Your task to perform on an android device: turn notification dots on Image 0: 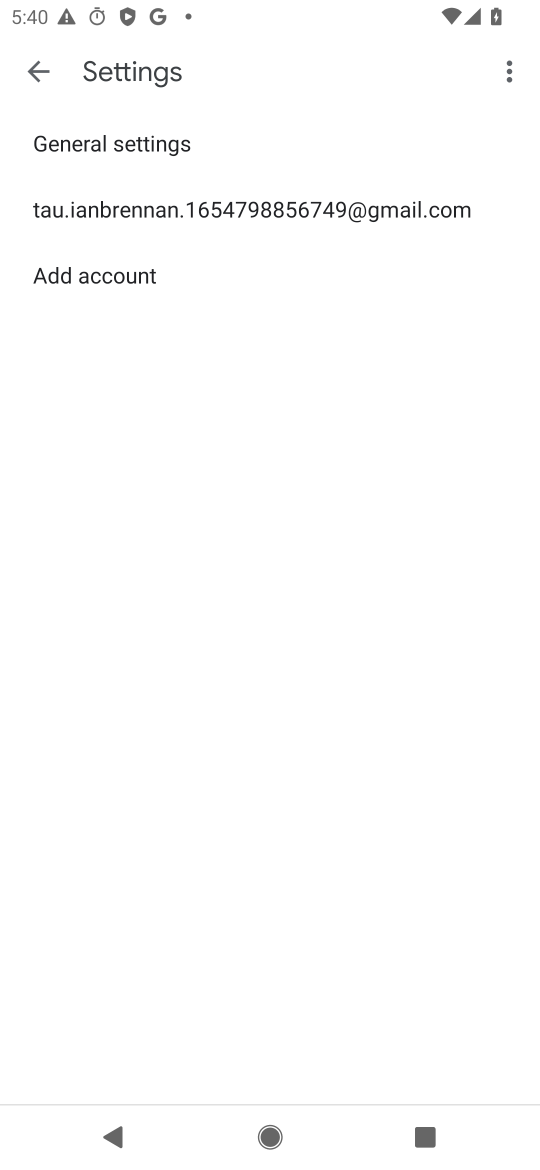
Step 0: press home button
Your task to perform on an android device: turn notification dots on Image 1: 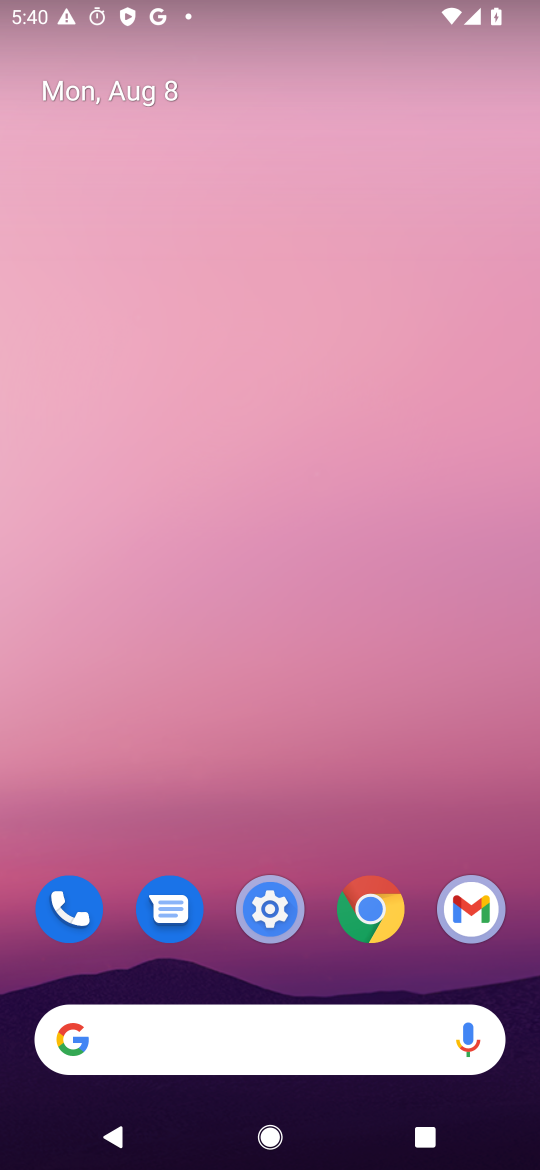
Step 1: click (272, 899)
Your task to perform on an android device: turn notification dots on Image 2: 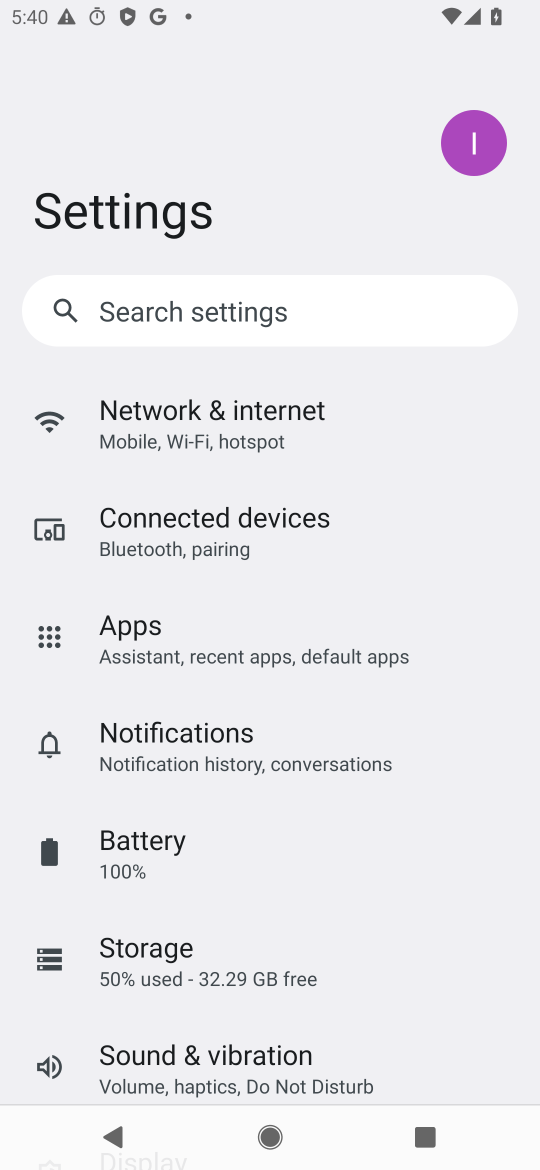
Step 2: click (232, 750)
Your task to perform on an android device: turn notification dots on Image 3: 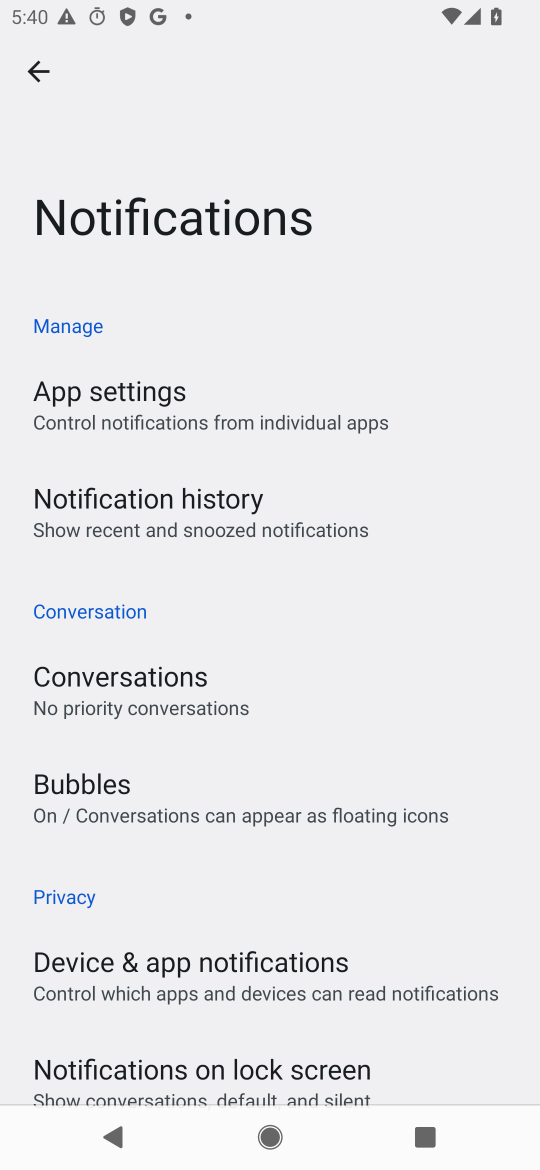
Step 3: drag from (204, 1048) to (504, 51)
Your task to perform on an android device: turn notification dots on Image 4: 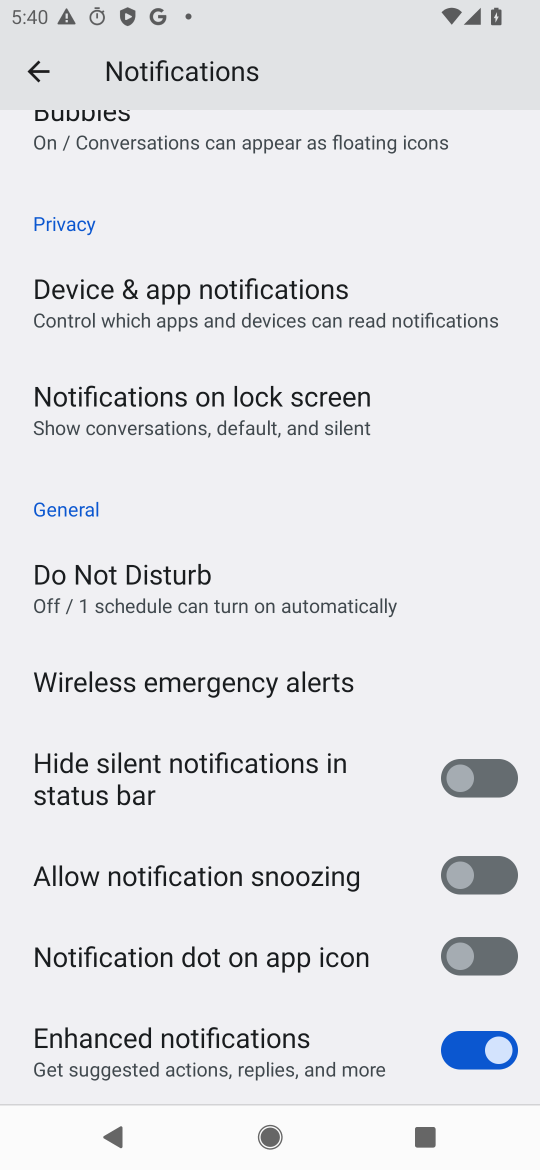
Step 4: click (480, 951)
Your task to perform on an android device: turn notification dots on Image 5: 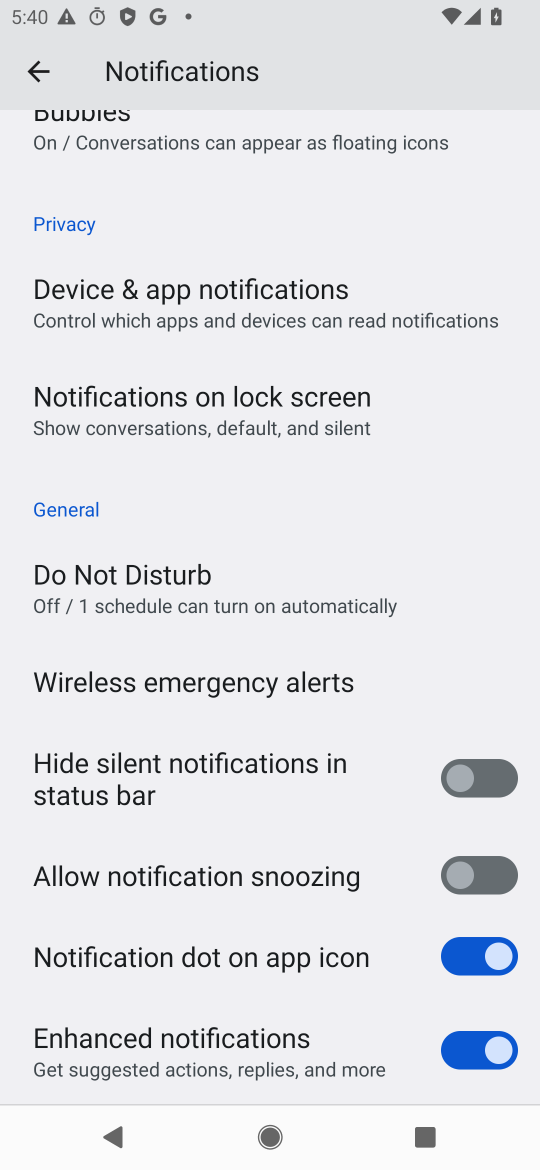
Step 5: task complete